Your task to perform on an android device: Open maps Image 0: 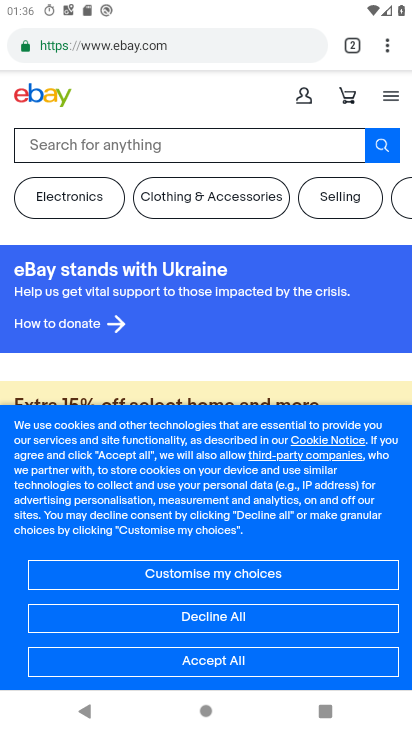
Step 0: press home button
Your task to perform on an android device: Open maps Image 1: 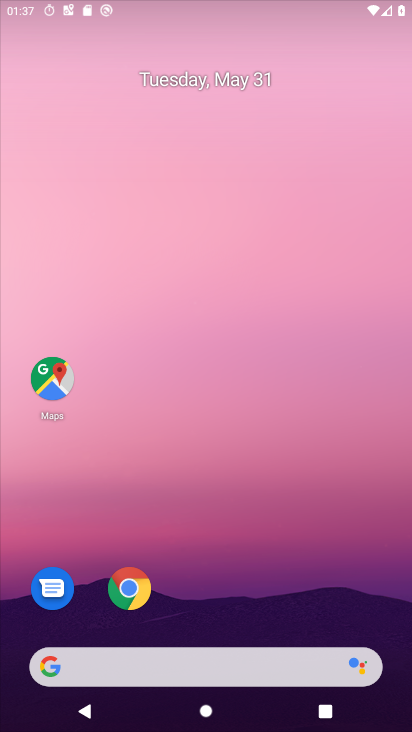
Step 1: drag from (265, 623) to (332, 50)
Your task to perform on an android device: Open maps Image 2: 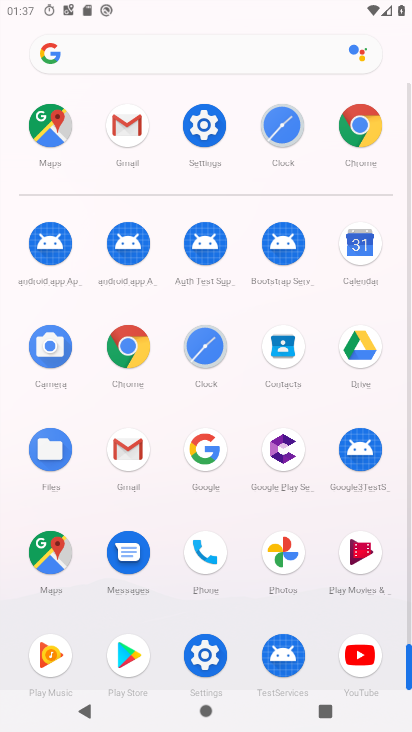
Step 2: click (64, 566)
Your task to perform on an android device: Open maps Image 3: 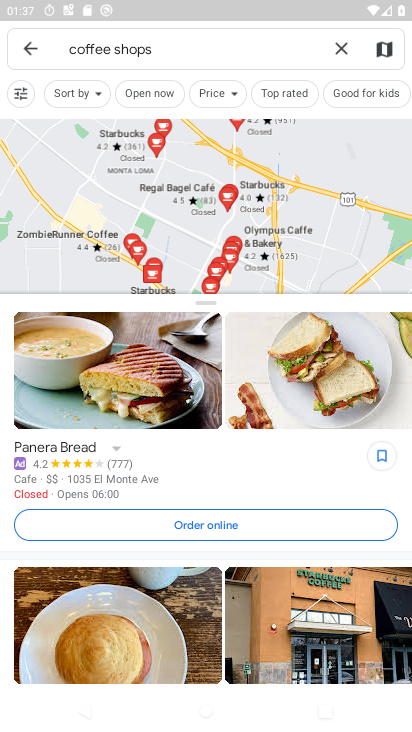
Step 3: task complete